Your task to perform on an android device: Go to ESPN.com Image 0: 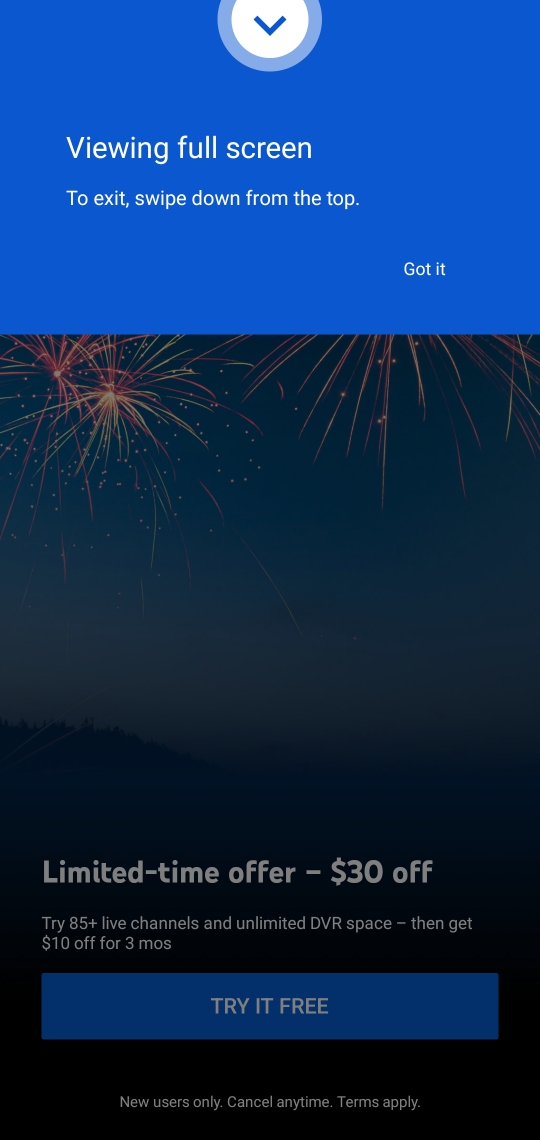
Step 0: press home button
Your task to perform on an android device: Go to ESPN.com Image 1: 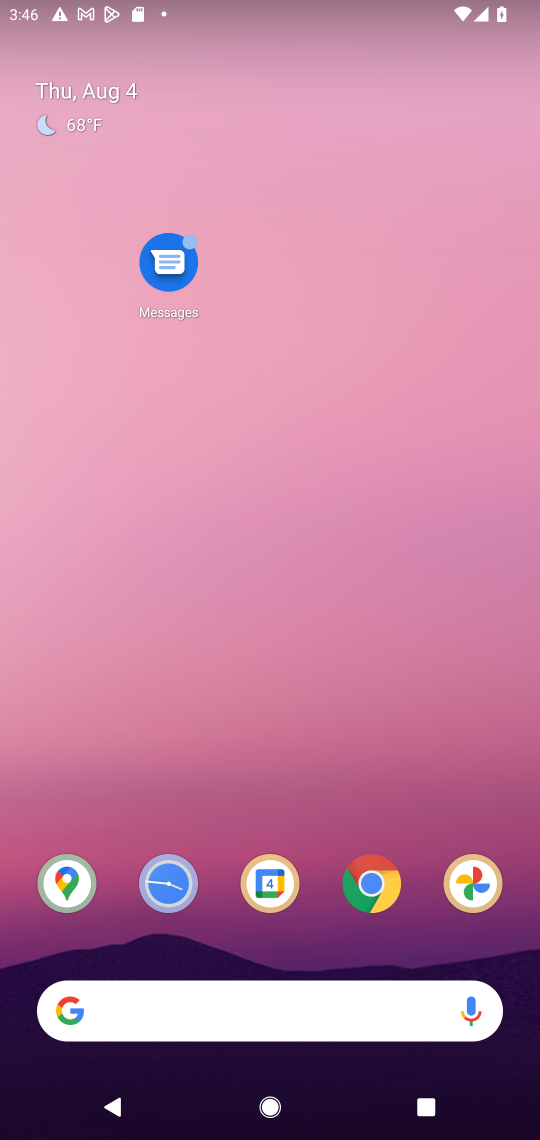
Step 1: drag from (320, 964) to (320, 161)
Your task to perform on an android device: Go to ESPN.com Image 2: 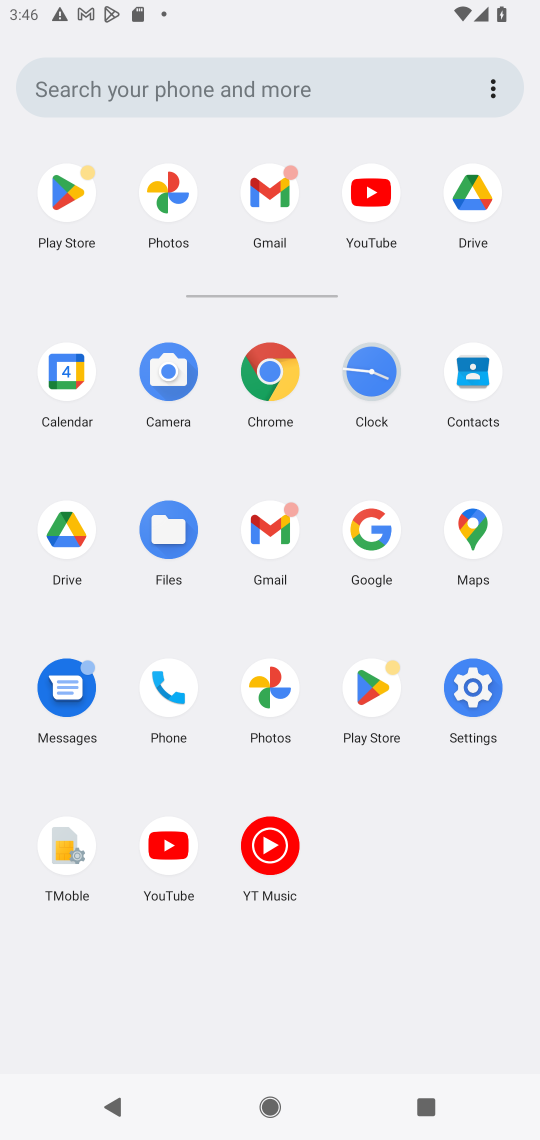
Step 2: click (266, 376)
Your task to perform on an android device: Go to ESPN.com Image 3: 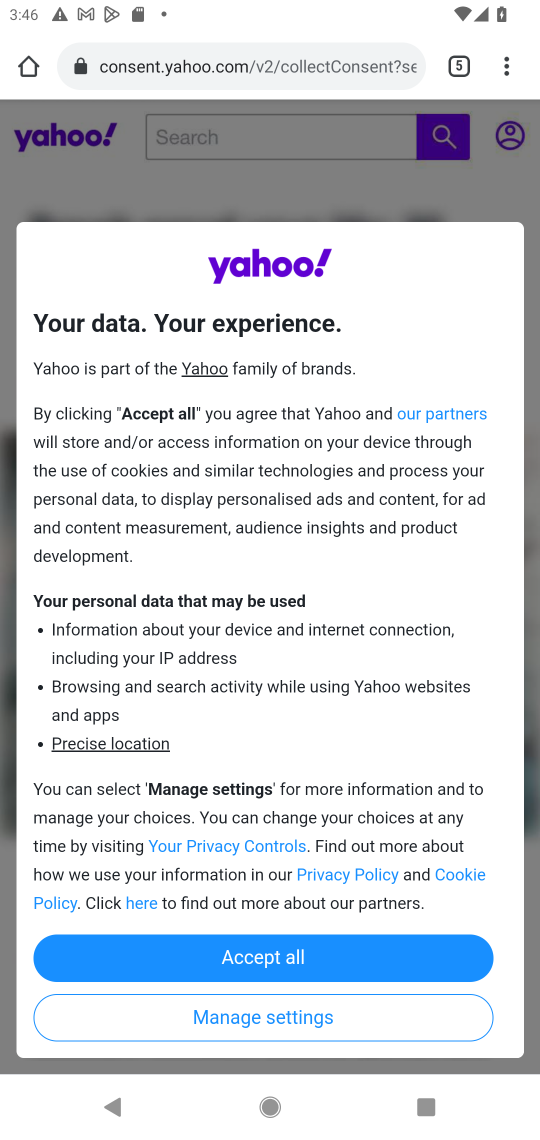
Step 3: click (507, 71)
Your task to perform on an android device: Go to ESPN.com Image 4: 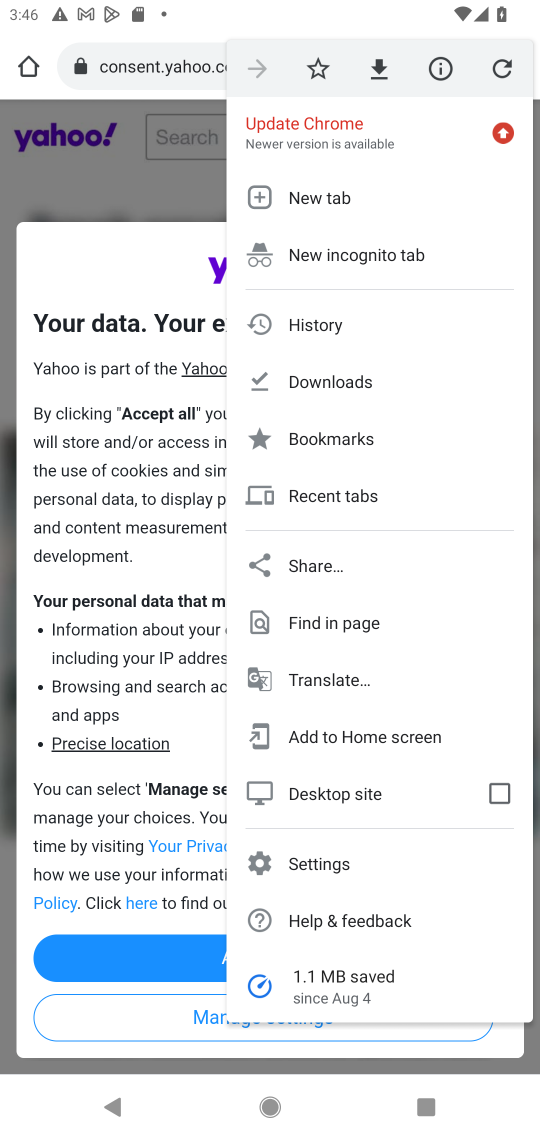
Step 4: click (318, 199)
Your task to perform on an android device: Go to ESPN.com Image 5: 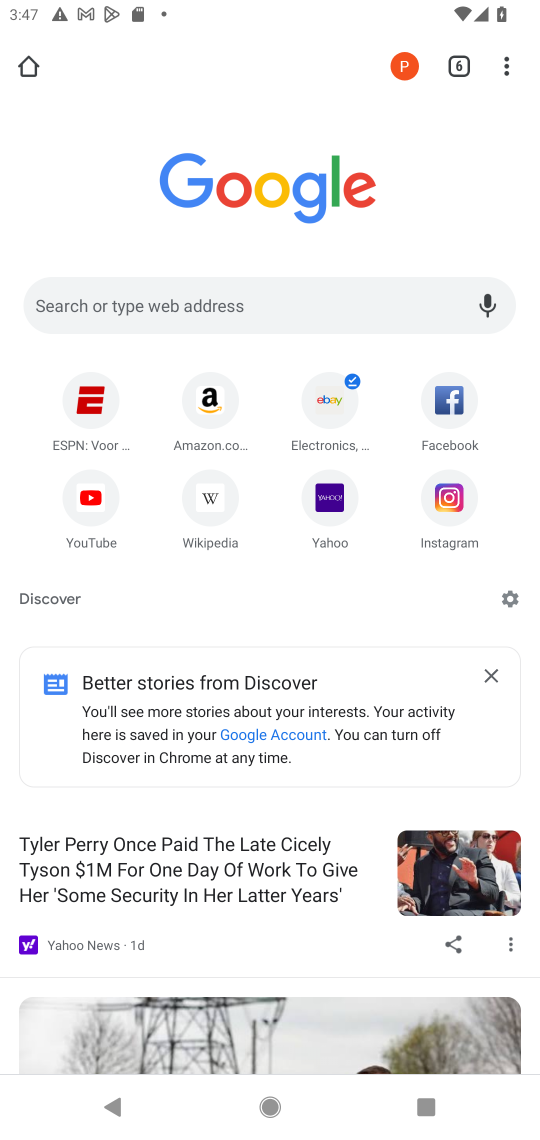
Step 5: click (90, 420)
Your task to perform on an android device: Go to ESPN.com Image 6: 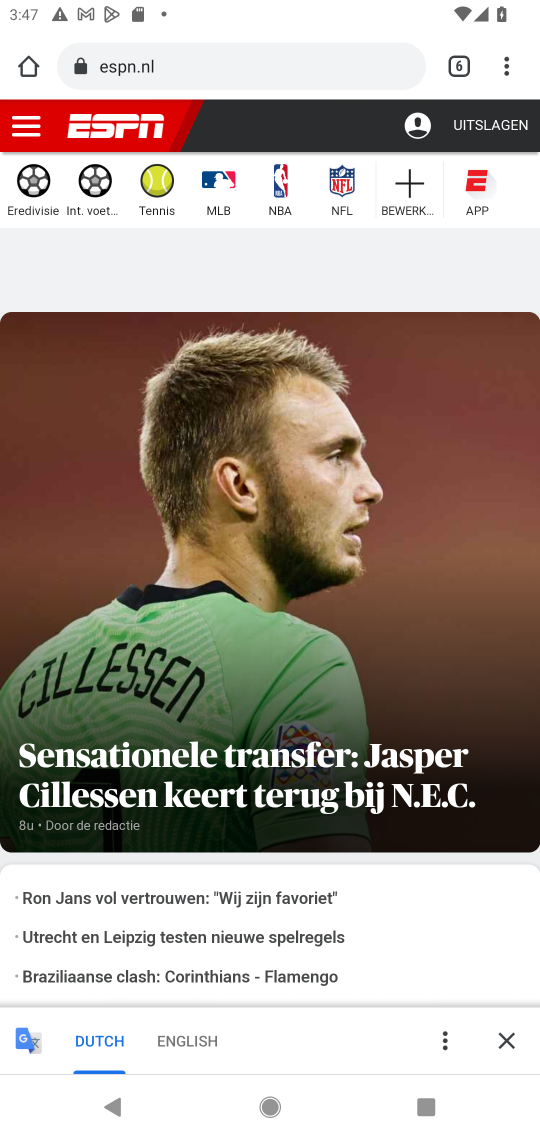
Step 6: task complete